Your task to perform on an android device: Search for pizza restaurants on Maps Image 0: 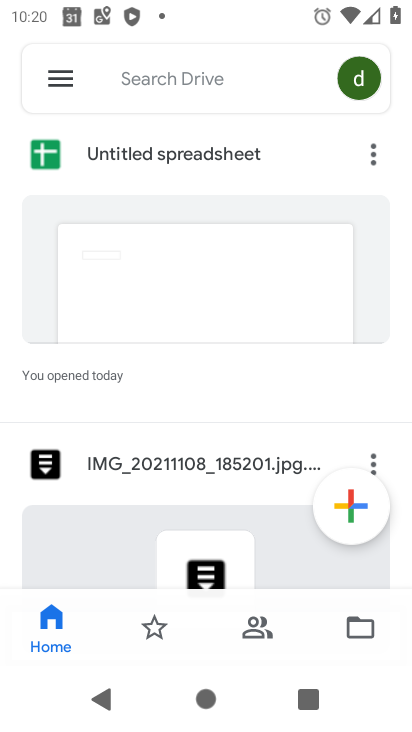
Step 0: press home button
Your task to perform on an android device: Search for pizza restaurants on Maps Image 1: 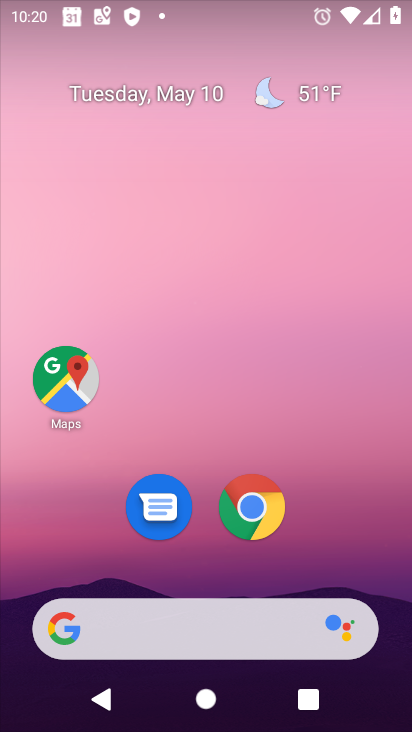
Step 1: click (32, 361)
Your task to perform on an android device: Search for pizza restaurants on Maps Image 2: 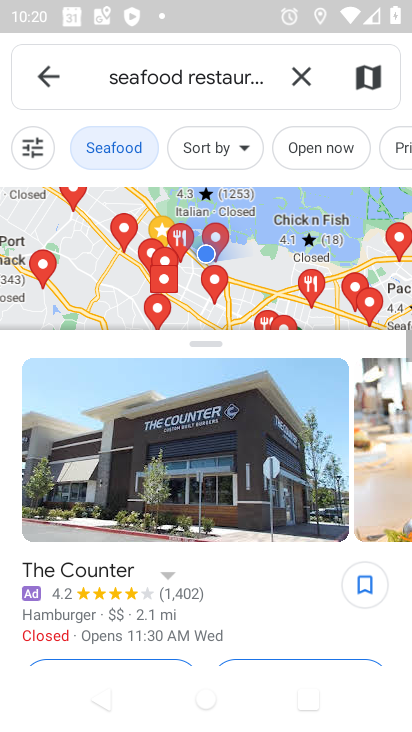
Step 2: click (301, 65)
Your task to perform on an android device: Search for pizza restaurants on Maps Image 3: 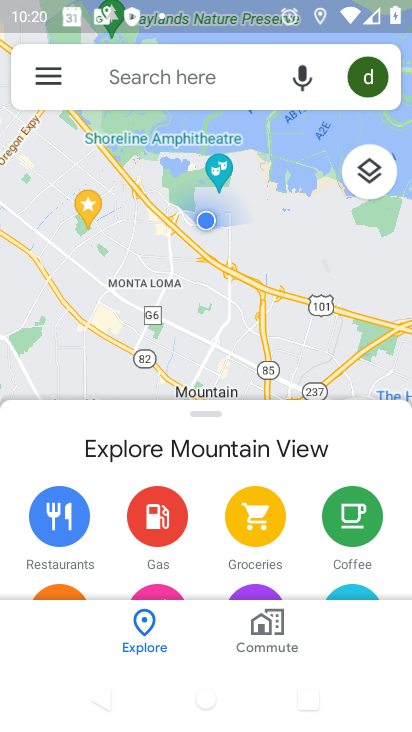
Step 3: click (117, 61)
Your task to perform on an android device: Search for pizza restaurants on Maps Image 4: 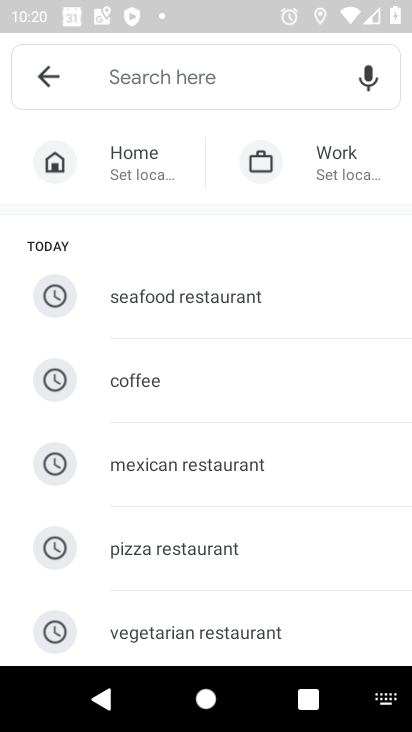
Step 4: click (118, 537)
Your task to perform on an android device: Search for pizza restaurants on Maps Image 5: 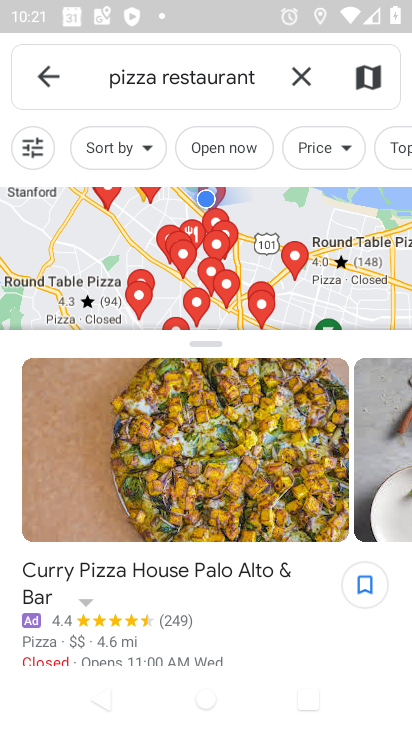
Step 5: task complete